Your task to perform on an android device: visit the assistant section in the google photos Image 0: 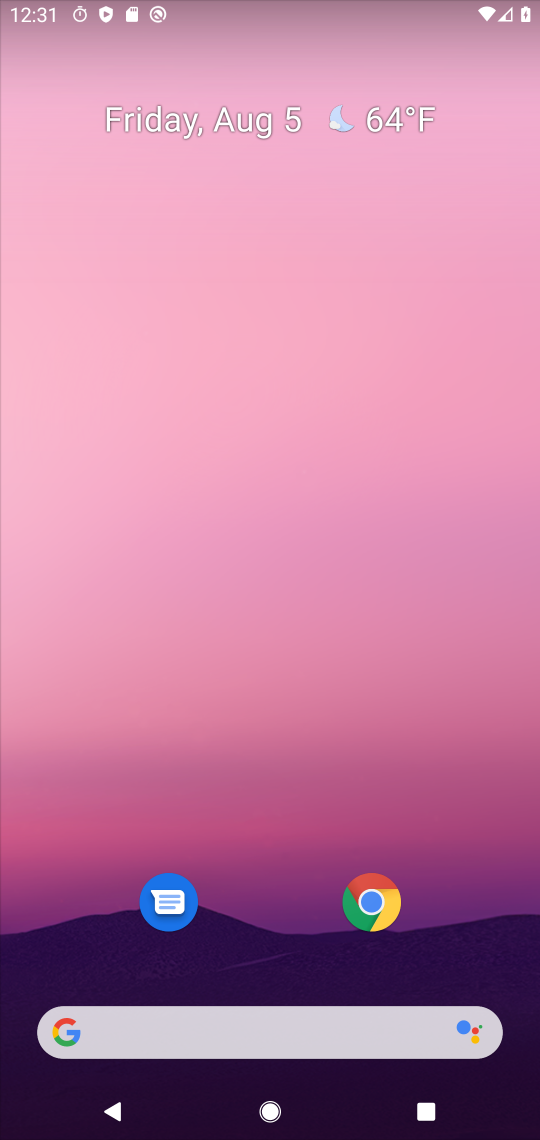
Step 0: press home button
Your task to perform on an android device: visit the assistant section in the google photos Image 1: 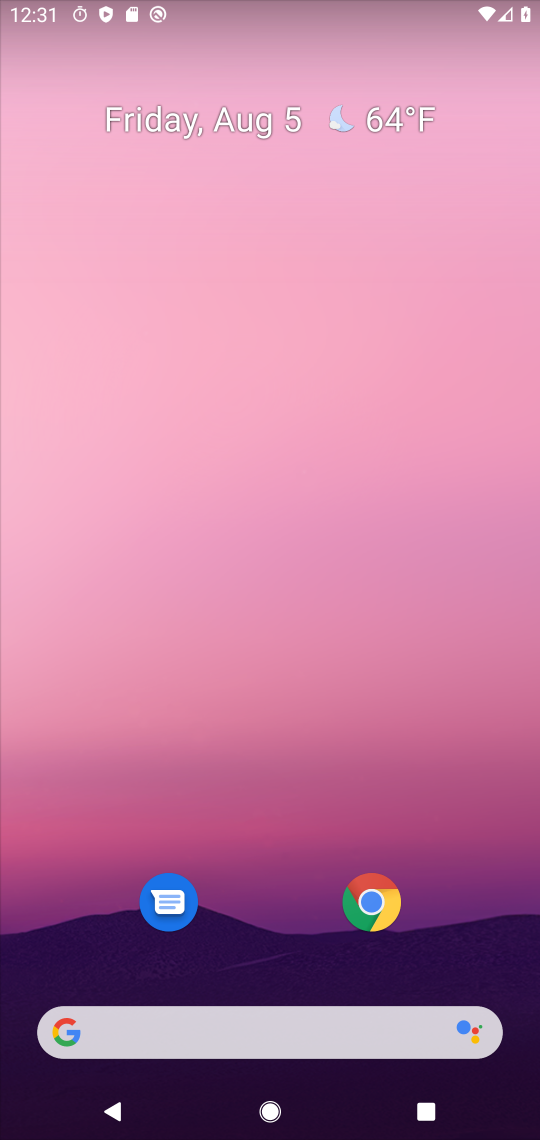
Step 1: drag from (268, 633) to (292, 350)
Your task to perform on an android device: visit the assistant section in the google photos Image 2: 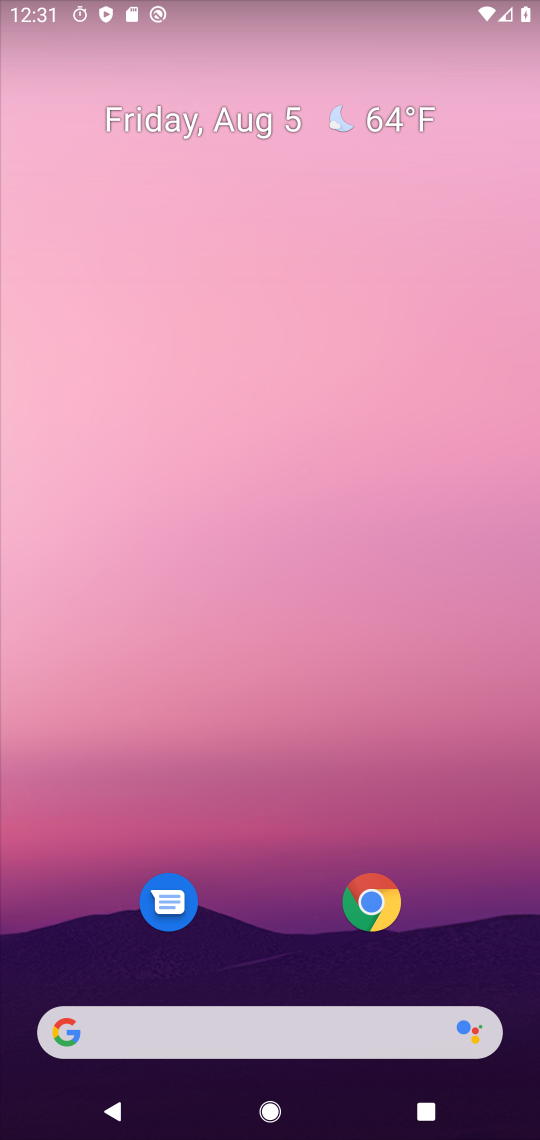
Step 2: drag from (313, 890) to (219, 226)
Your task to perform on an android device: visit the assistant section in the google photos Image 3: 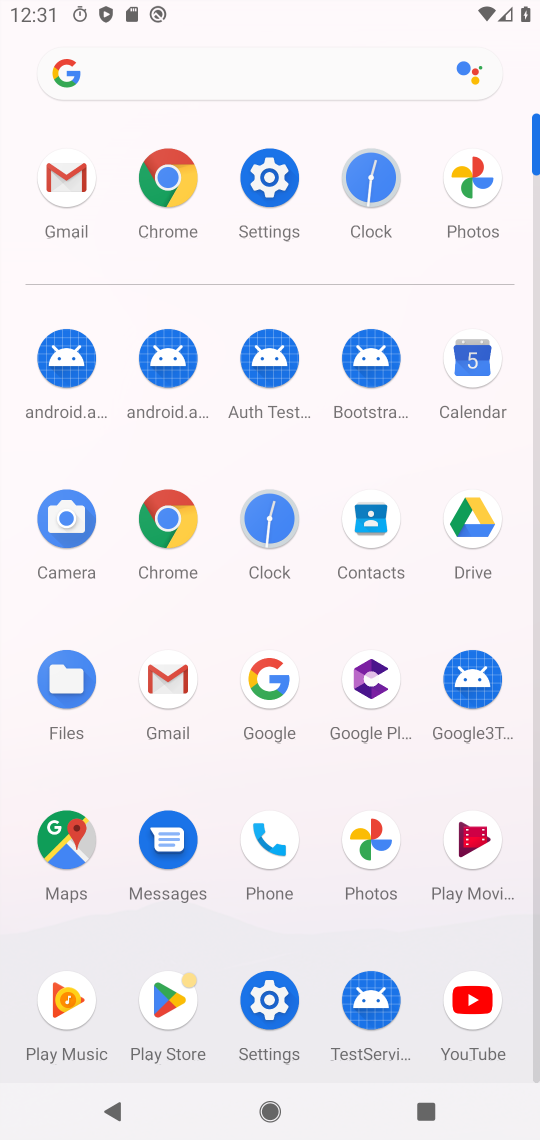
Step 3: click (361, 859)
Your task to perform on an android device: visit the assistant section in the google photos Image 4: 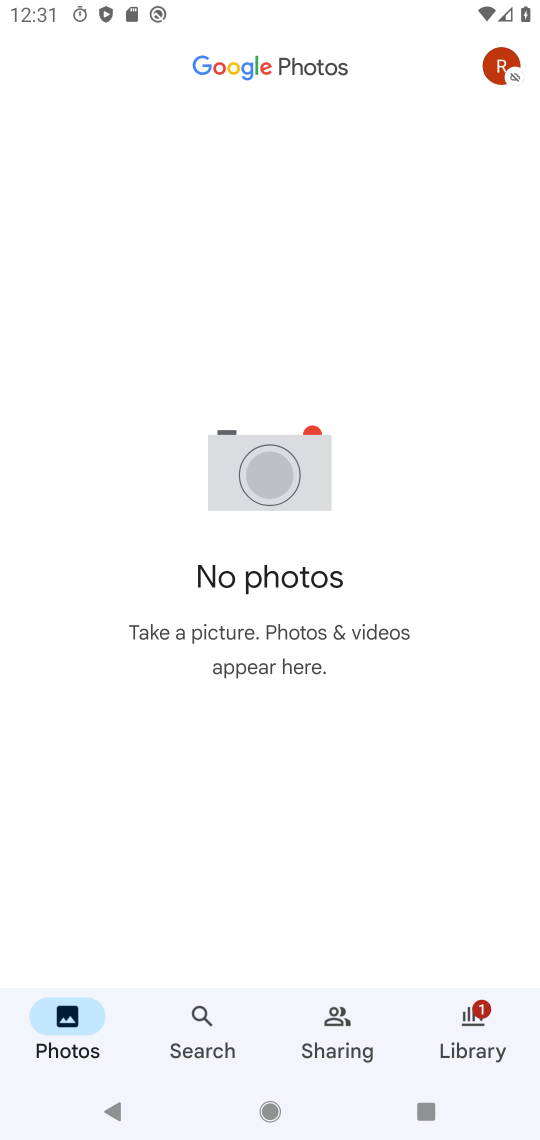
Step 4: click (503, 36)
Your task to perform on an android device: visit the assistant section in the google photos Image 5: 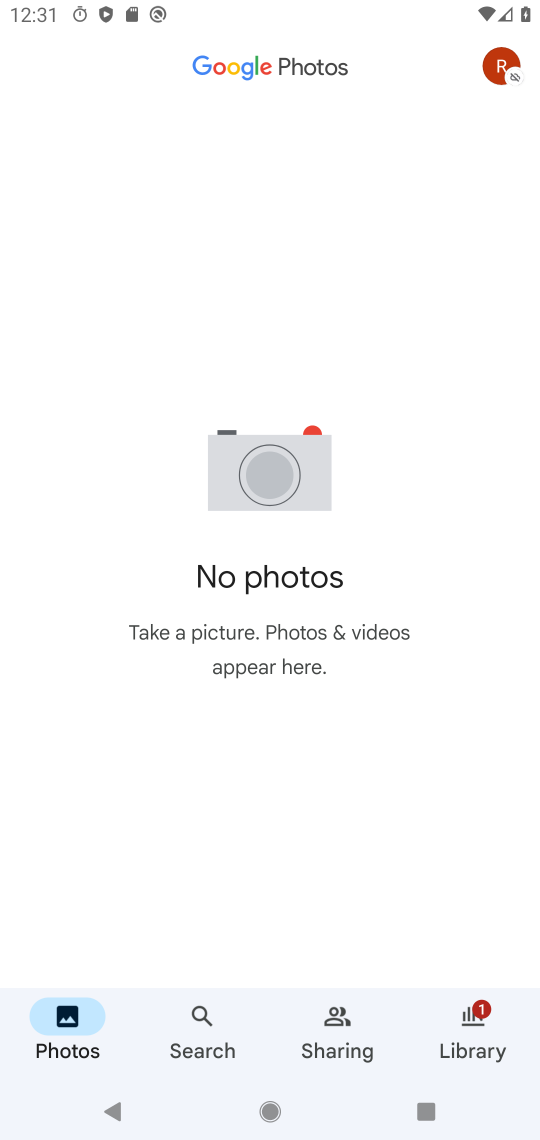
Step 5: task complete